Your task to perform on an android device: Toggle the flashlight Image 0: 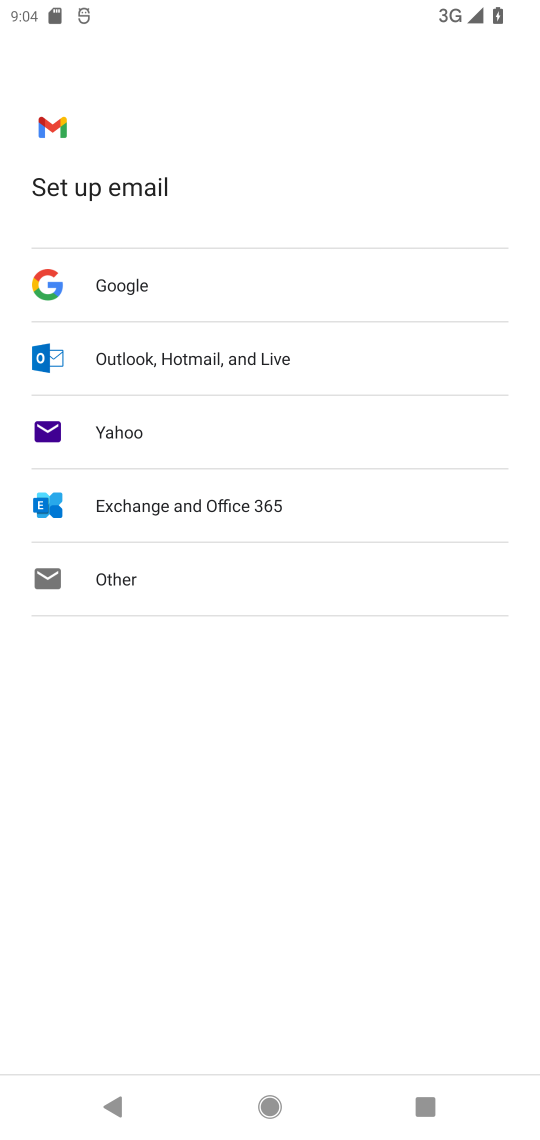
Step 0: press home button
Your task to perform on an android device: Toggle the flashlight Image 1: 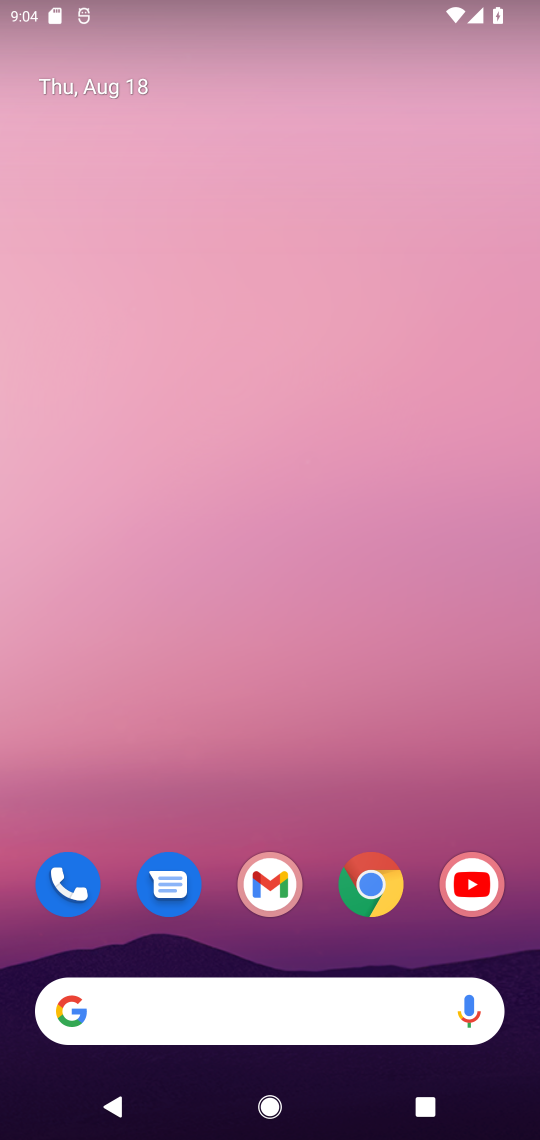
Step 1: drag from (272, 715) to (267, 81)
Your task to perform on an android device: Toggle the flashlight Image 2: 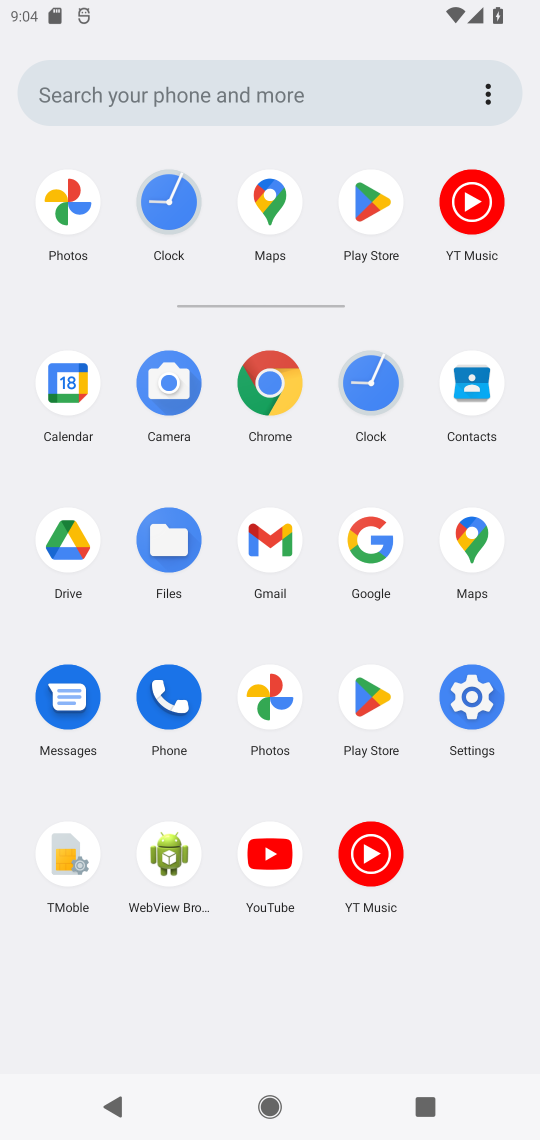
Step 2: click (476, 714)
Your task to perform on an android device: Toggle the flashlight Image 3: 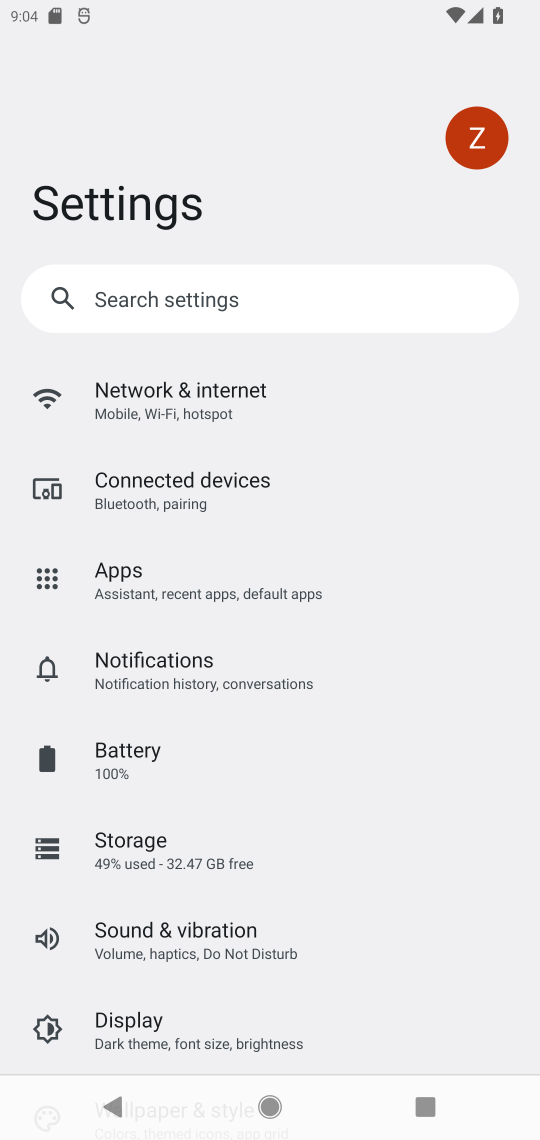
Step 3: task complete